Your task to perform on an android device: turn on location history Image 0: 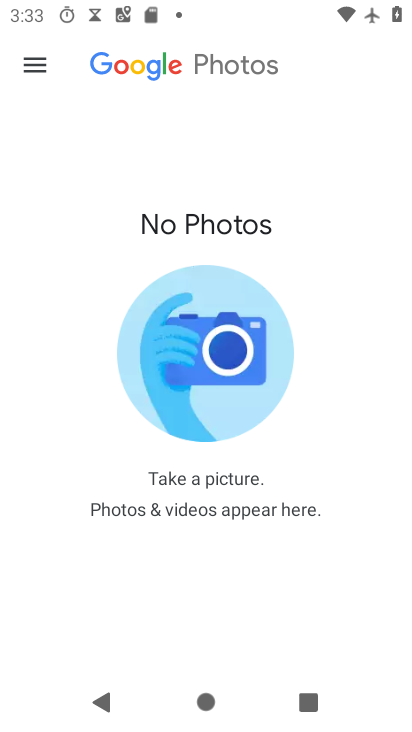
Step 0: press home button
Your task to perform on an android device: turn on location history Image 1: 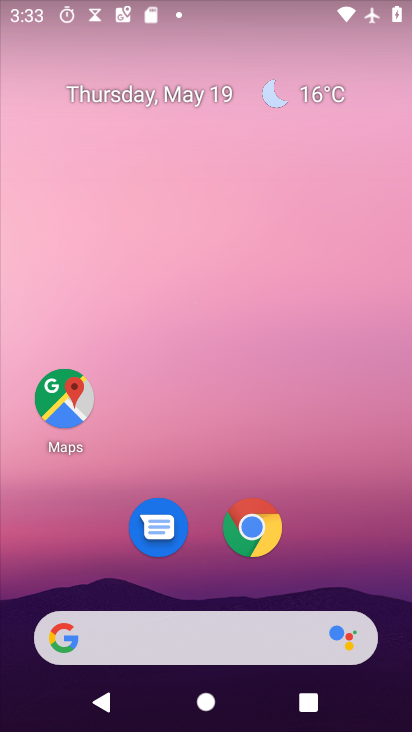
Step 1: drag from (333, 481) to (176, 29)
Your task to perform on an android device: turn on location history Image 2: 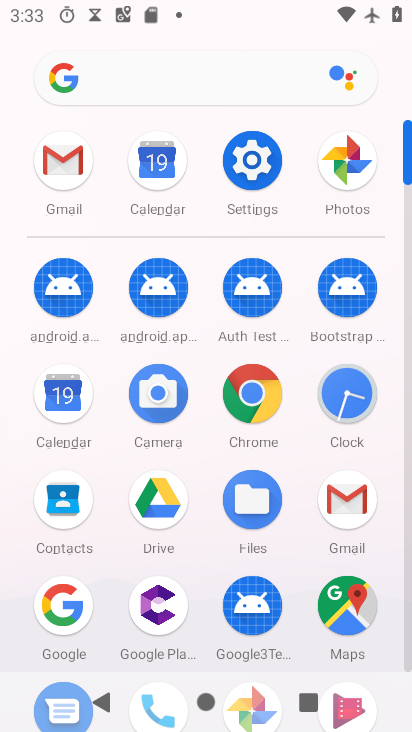
Step 2: click (248, 164)
Your task to perform on an android device: turn on location history Image 3: 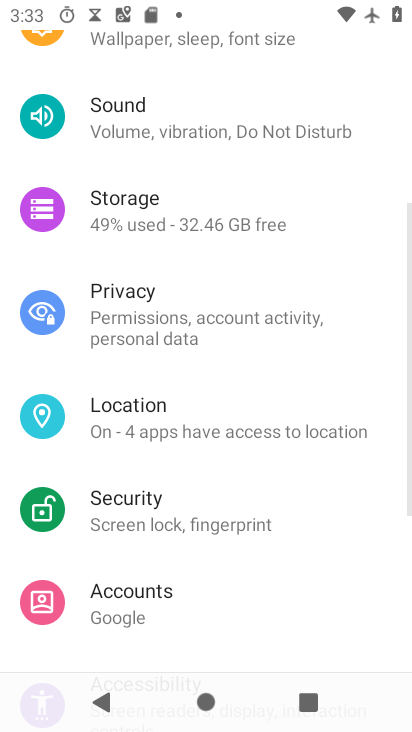
Step 3: click (230, 424)
Your task to perform on an android device: turn on location history Image 4: 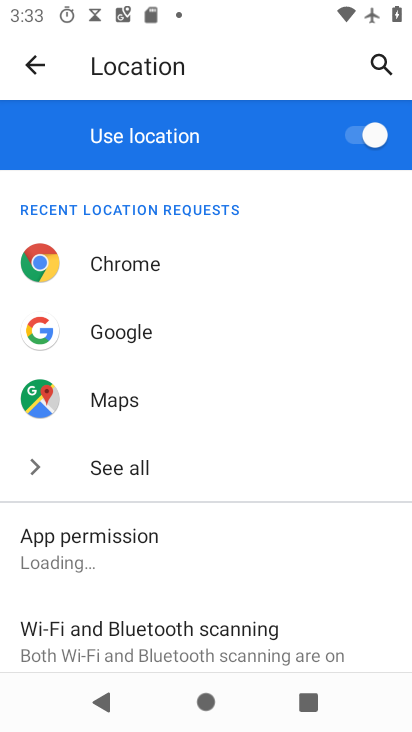
Step 4: drag from (250, 486) to (220, 147)
Your task to perform on an android device: turn on location history Image 5: 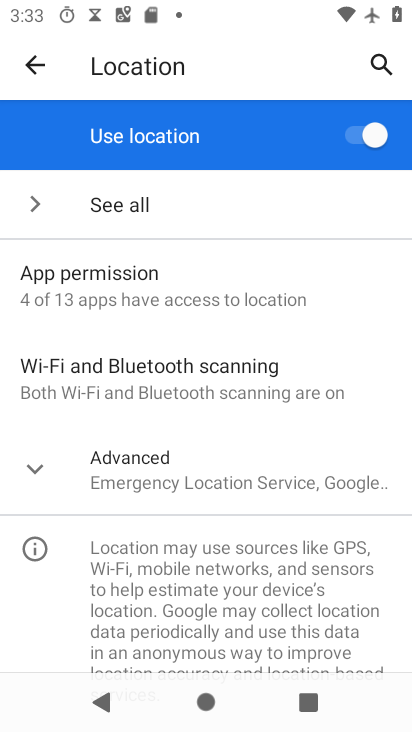
Step 5: click (276, 477)
Your task to perform on an android device: turn on location history Image 6: 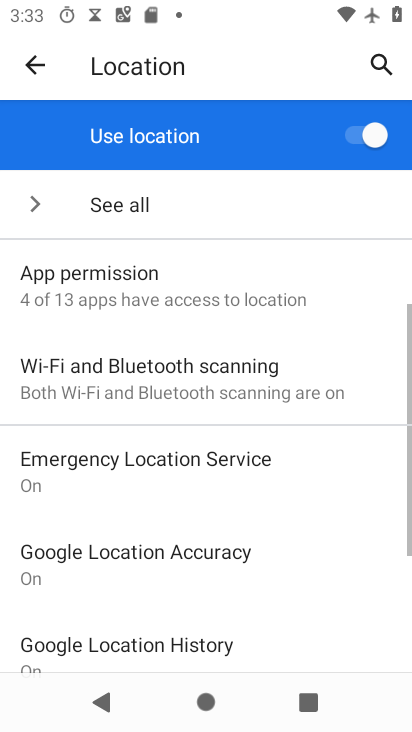
Step 6: drag from (252, 611) to (255, 404)
Your task to perform on an android device: turn on location history Image 7: 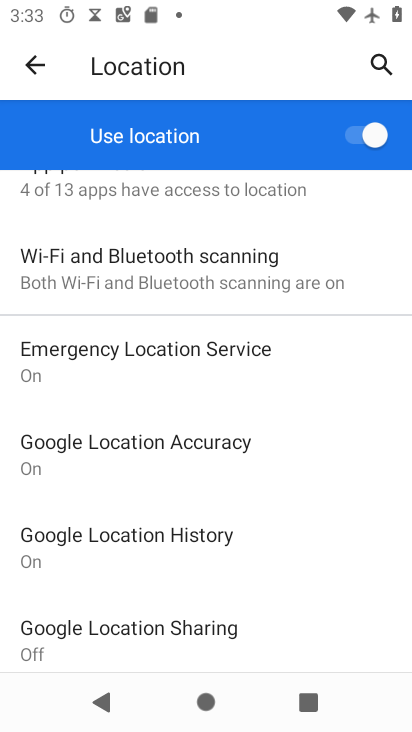
Step 7: click (187, 527)
Your task to perform on an android device: turn on location history Image 8: 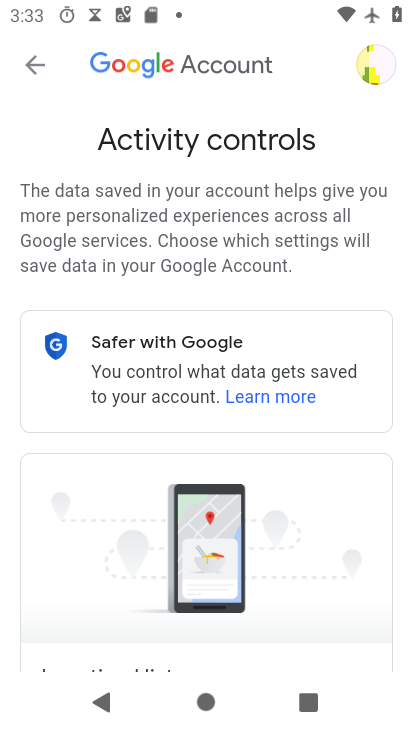
Step 8: task complete